Your task to perform on an android device: find which apps use the phone's location Image 0: 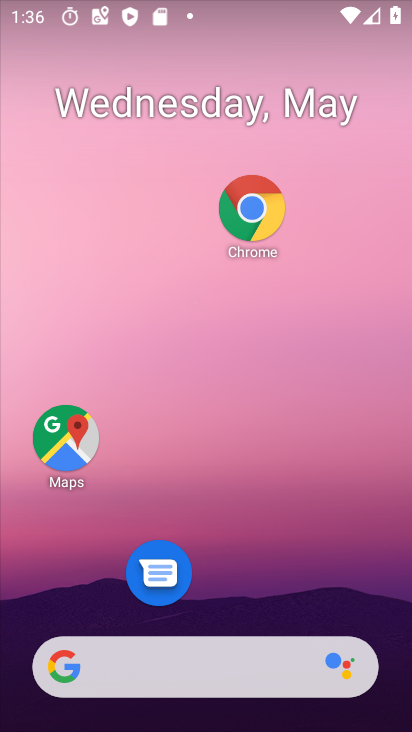
Step 0: drag from (207, 607) to (157, 210)
Your task to perform on an android device: find which apps use the phone's location Image 1: 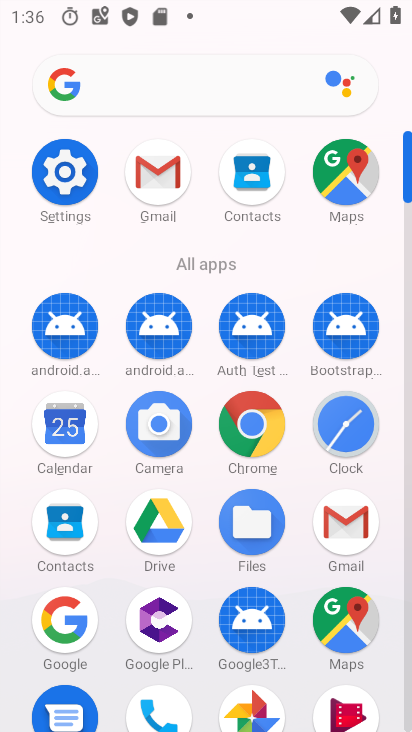
Step 1: click (84, 177)
Your task to perform on an android device: find which apps use the phone's location Image 2: 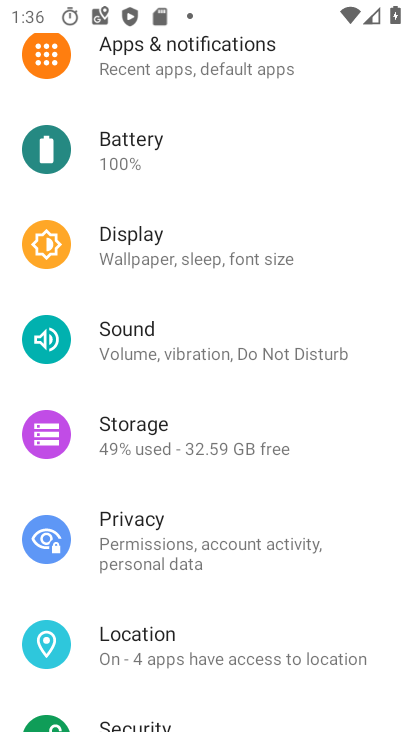
Step 2: click (97, 646)
Your task to perform on an android device: find which apps use the phone's location Image 3: 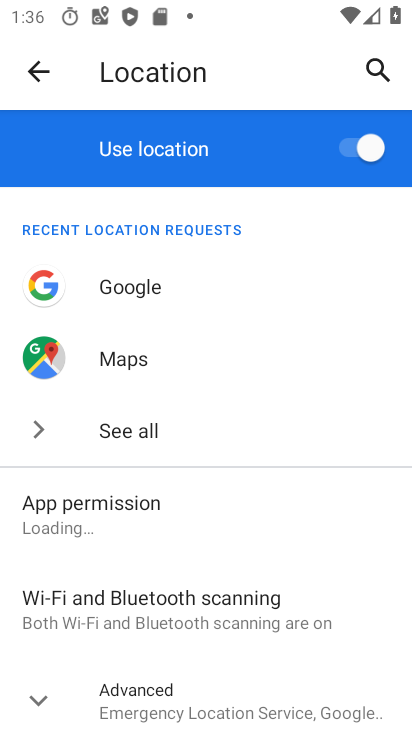
Step 3: click (111, 443)
Your task to perform on an android device: find which apps use the phone's location Image 4: 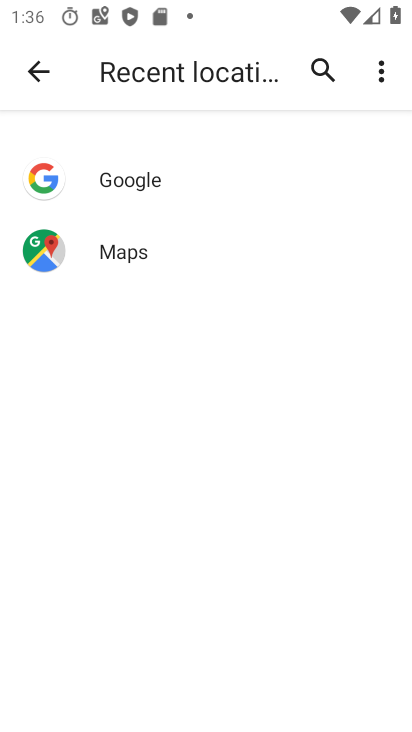
Step 4: task complete